Your task to perform on an android device: Open the phone app and click the voicemail tab. Image 0: 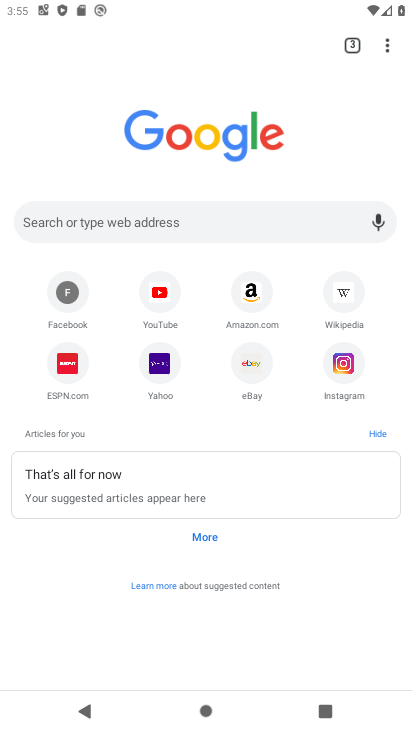
Step 0: press home button
Your task to perform on an android device: Open the phone app and click the voicemail tab. Image 1: 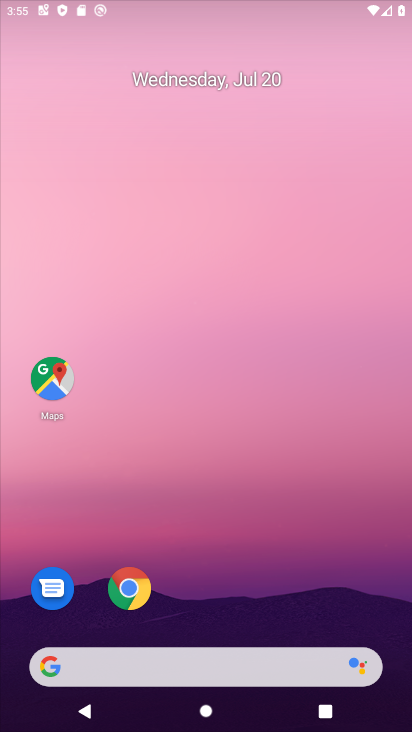
Step 1: drag from (295, 548) to (263, 57)
Your task to perform on an android device: Open the phone app and click the voicemail tab. Image 2: 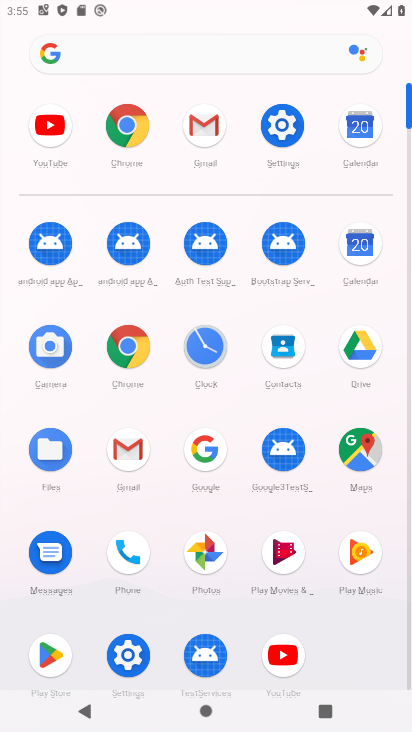
Step 2: click (129, 544)
Your task to perform on an android device: Open the phone app and click the voicemail tab. Image 3: 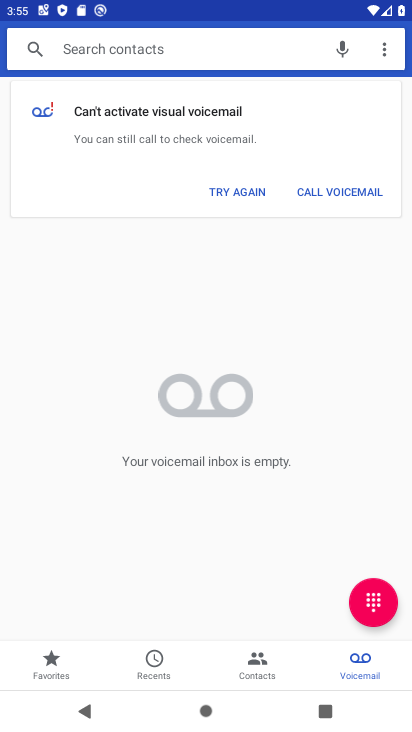
Step 3: click (365, 665)
Your task to perform on an android device: Open the phone app and click the voicemail tab. Image 4: 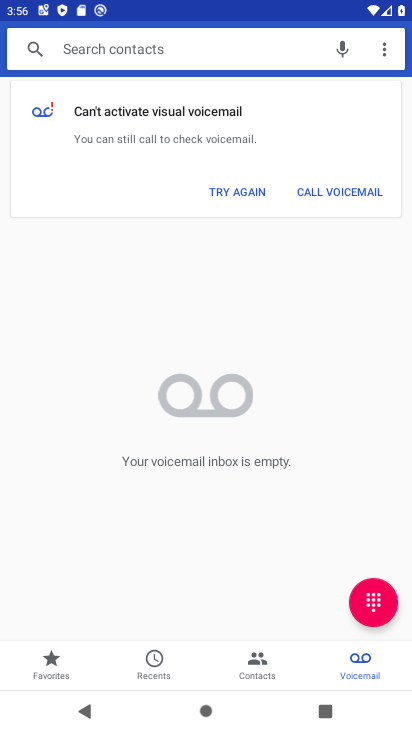
Step 4: task complete